Your task to perform on an android device: check data usage Image 0: 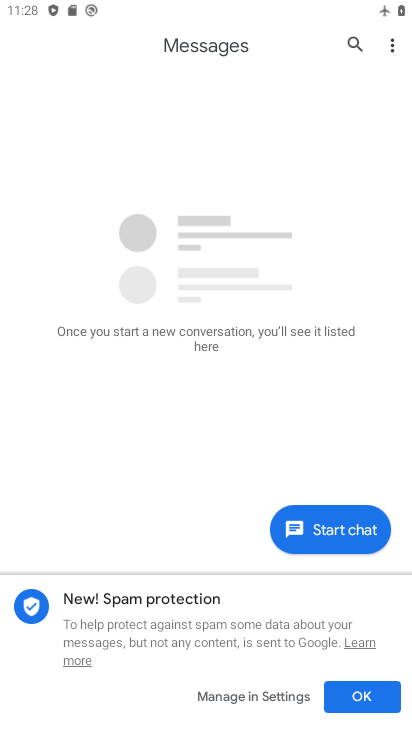
Step 0: press home button
Your task to perform on an android device: check data usage Image 1: 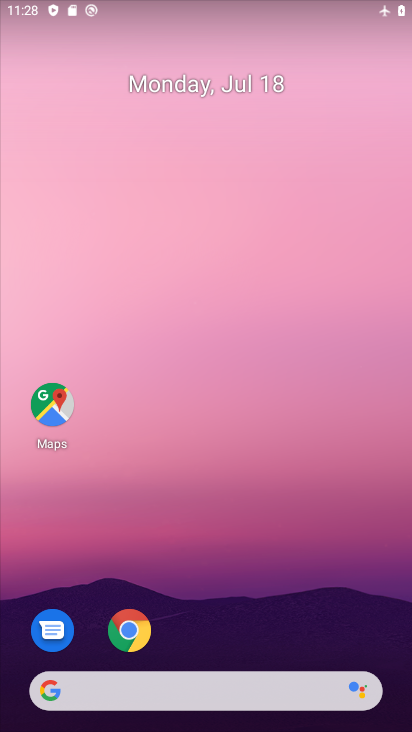
Step 1: click (187, 18)
Your task to perform on an android device: check data usage Image 2: 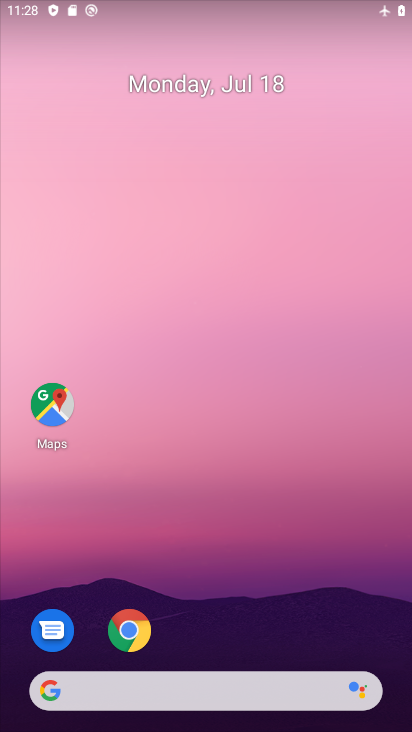
Step 2: drag from (184, 644) to (215, 115)
Your task to perform on an android device: check data usage Image 3: 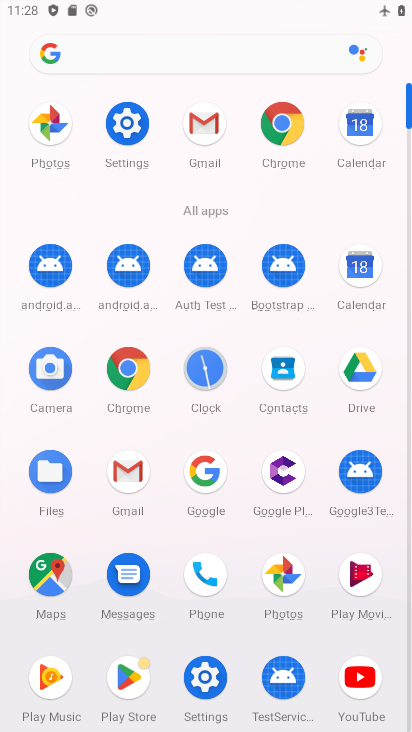
Step 3: click (130, 124)
Your task to perform on an android device: check data usage Image 4: 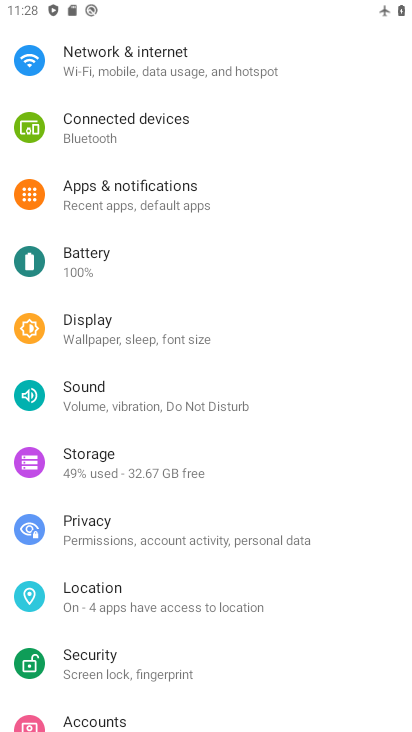
Step 4: click (157, 75)
Your task to perform on an android device: check data usage Image 5: 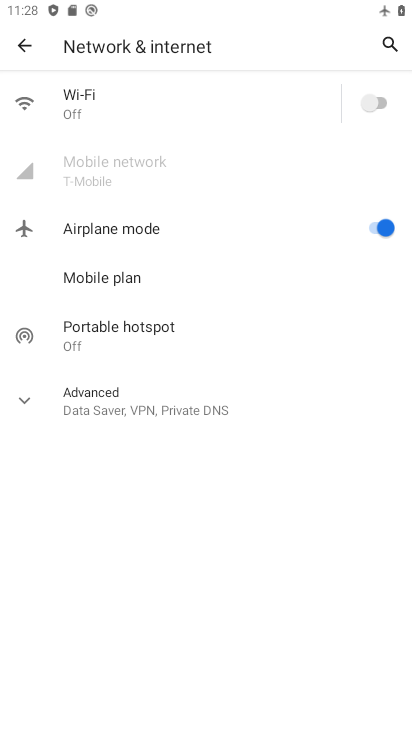
Step 5: click (346, 223)
Your task to perform on an android device: check data usage Image 6: 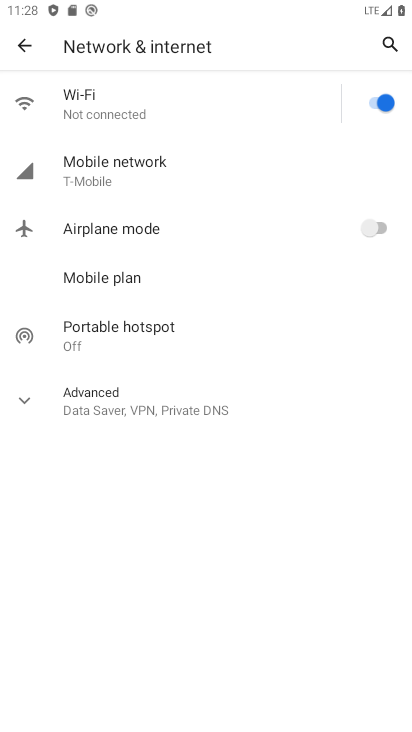
Step 6: click (159, 175)
Your task to perform on an android device: check data usage Image 7: 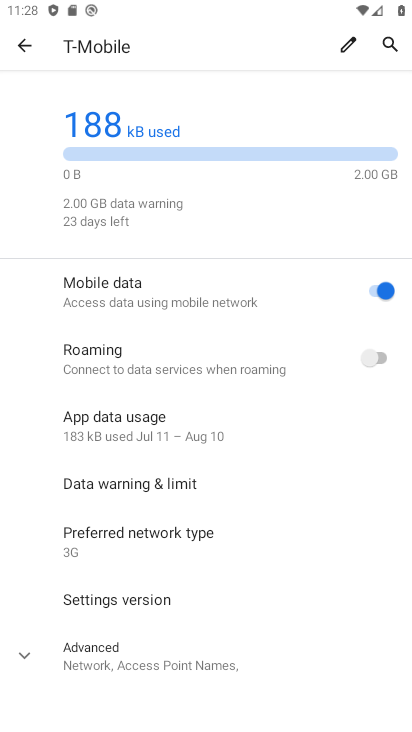
Step 7: click (186, 435)
Your task to perform on an android device: check data usage Image 8: 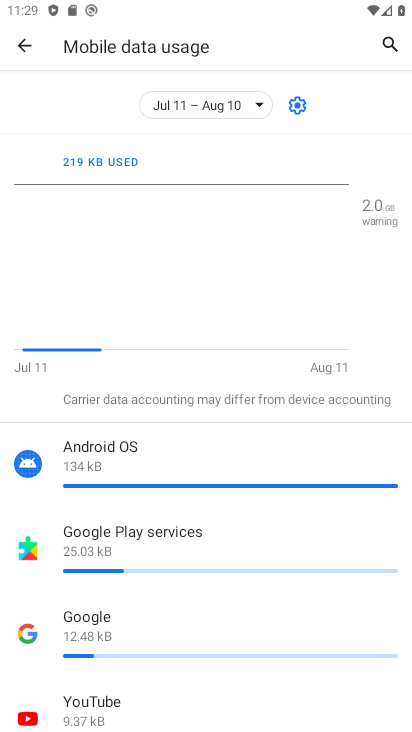
Step 8: task complete